Your task to perform on an android device: Go to accessibility settings Image 0: 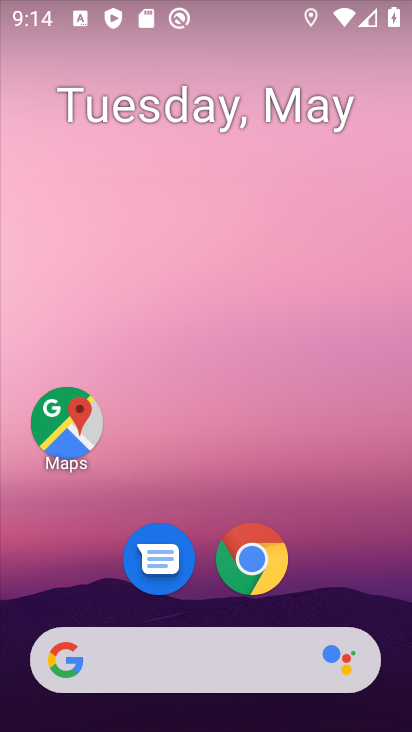
Step 0: drag from (182, 618) to (170, 119)
Your task to perform on an android device: Go to accessibility settings Image 1: 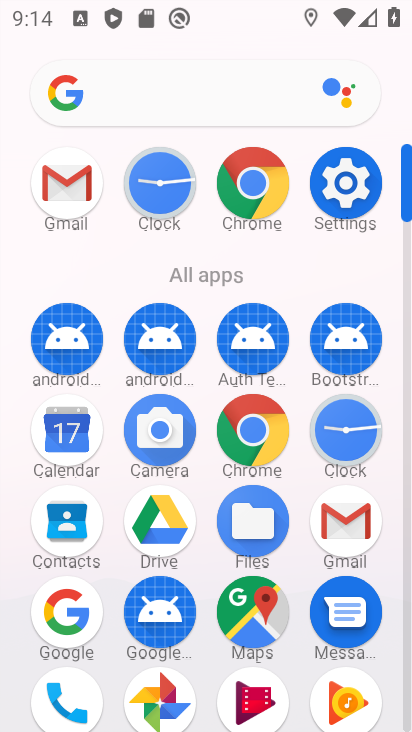
Step 1: click (350, 189)
Your task to perform on an android device: Go to accessibility settings Image 2: 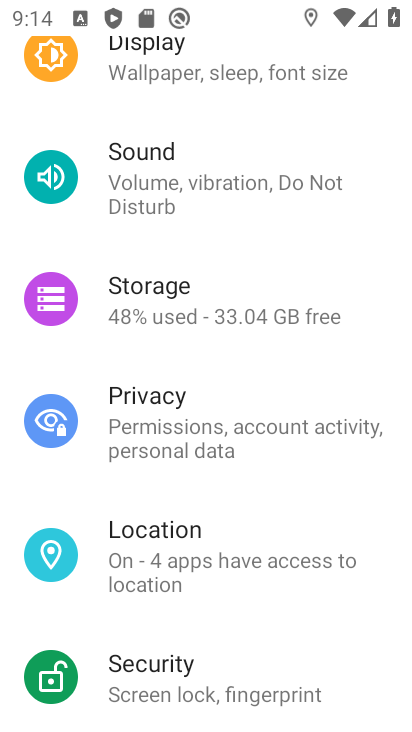
Step 2: drag from (179, 641) to (203, 56)
Your task to perform on an android device: Go to accessibility settings Image 3: 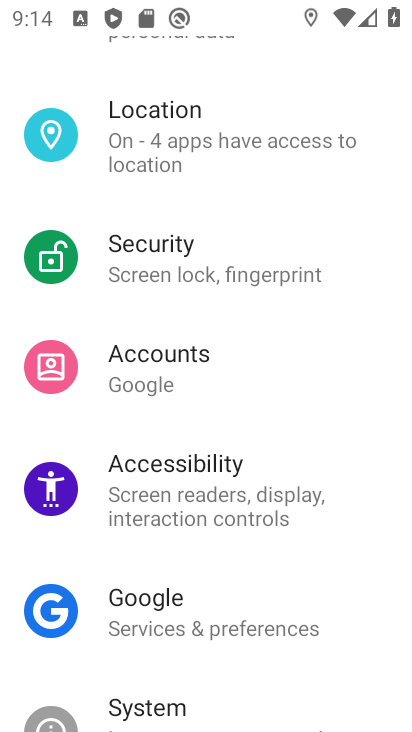
Step 3: click (199, 511)
Your task to perform on an android device: Go to accessibility settings Image 4: 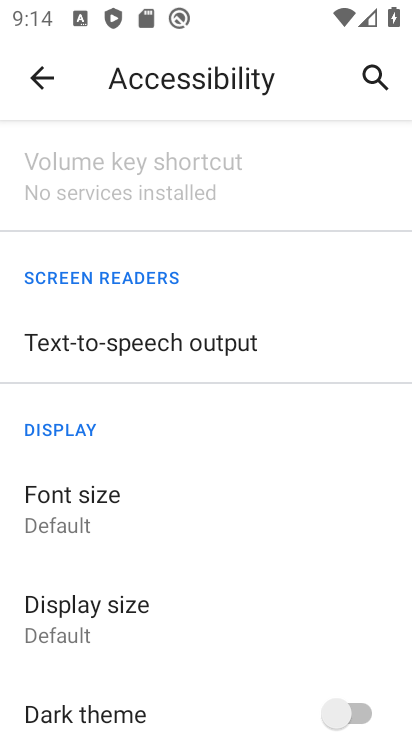
Step 4: task complete